Your task to perform on an android device: open app "PlayWell" Image 0: 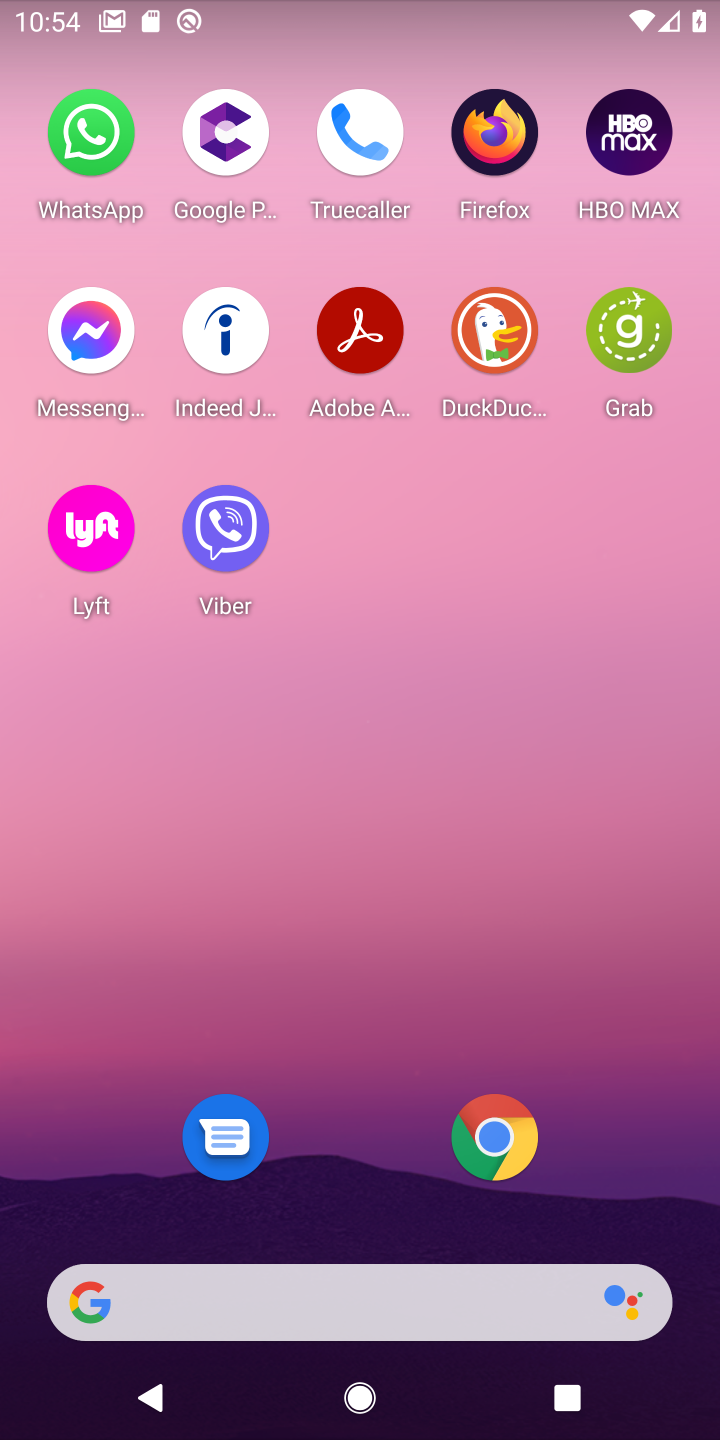
Step 0: press home button
Your task to perform on an android device: open app "PlayWell" Image 1: 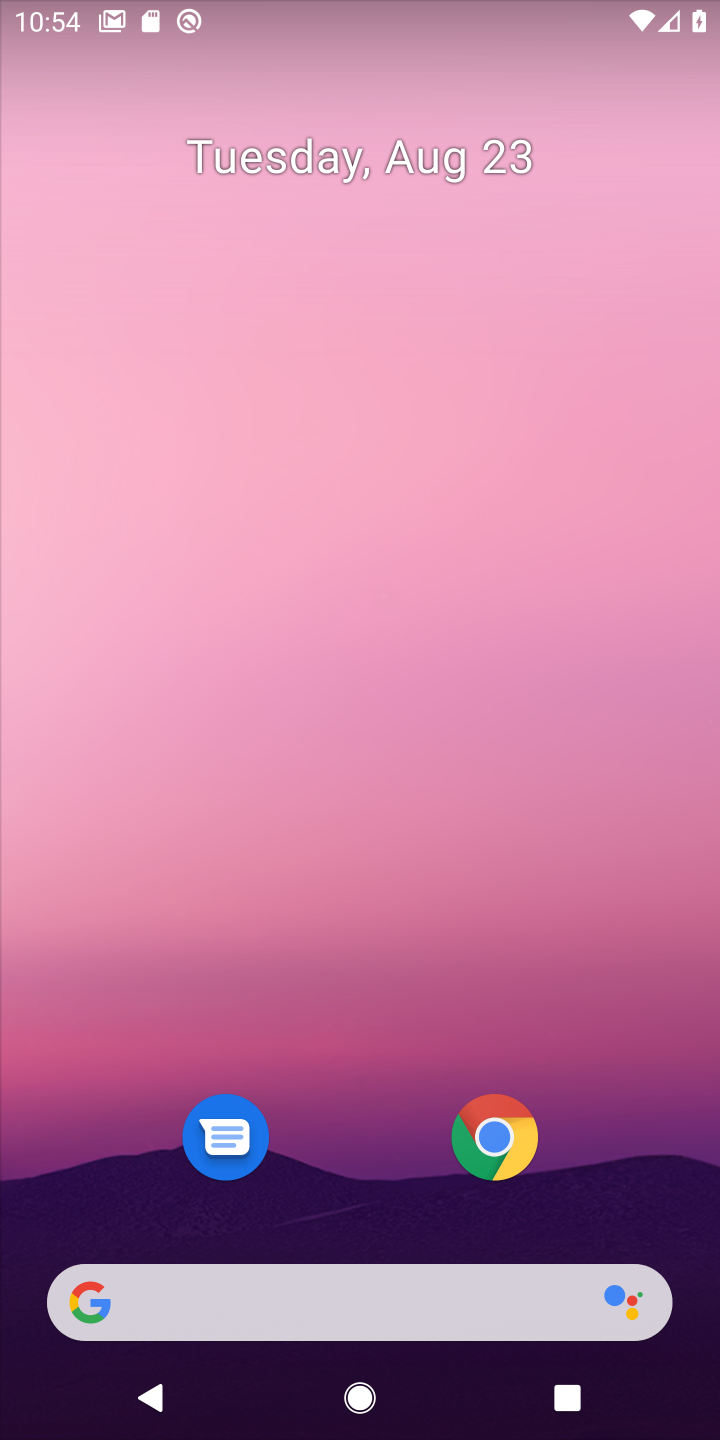
Step 1: drag from (351, 1178) to (338, 31)
Your task to perform on an android device: open app "PlayWell" Image 2: 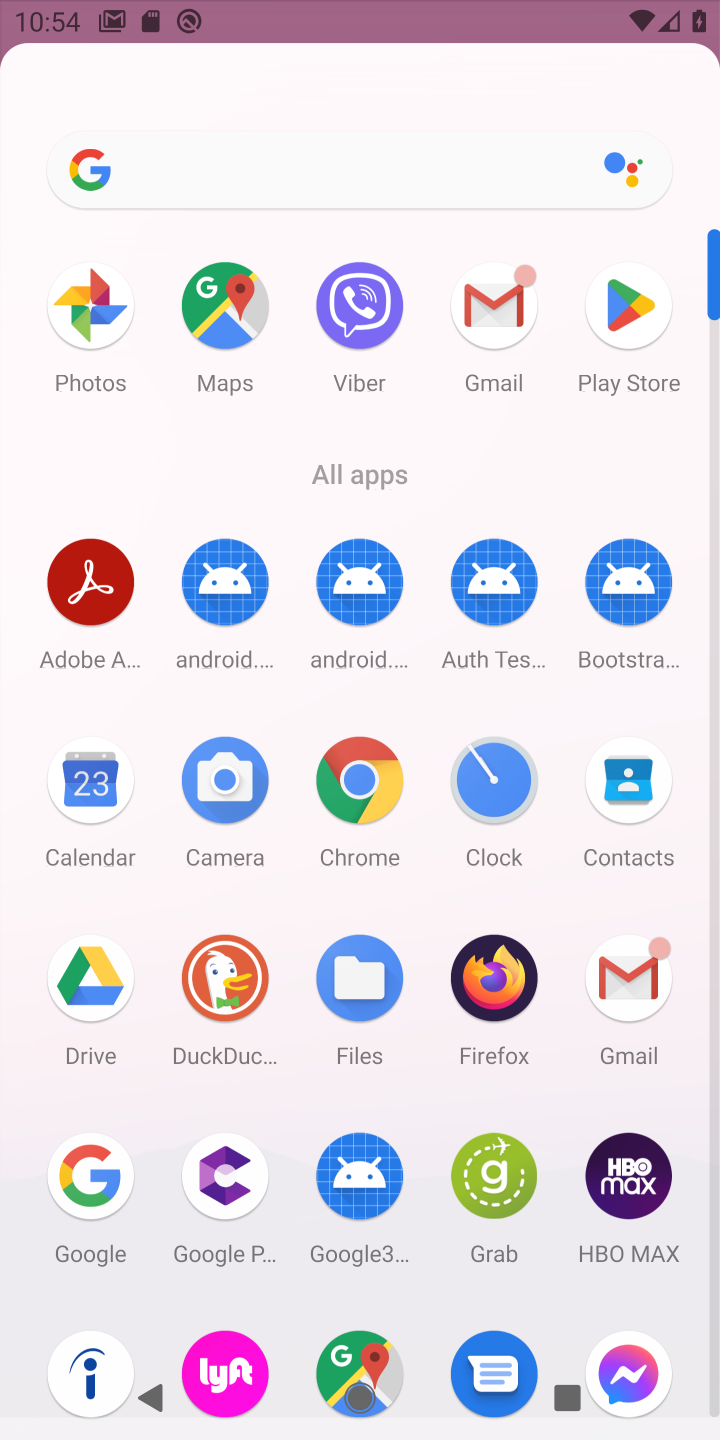
Step 2: click (630, 313)
Your task to perform on an android device: open app "PlayWell" Image 3: 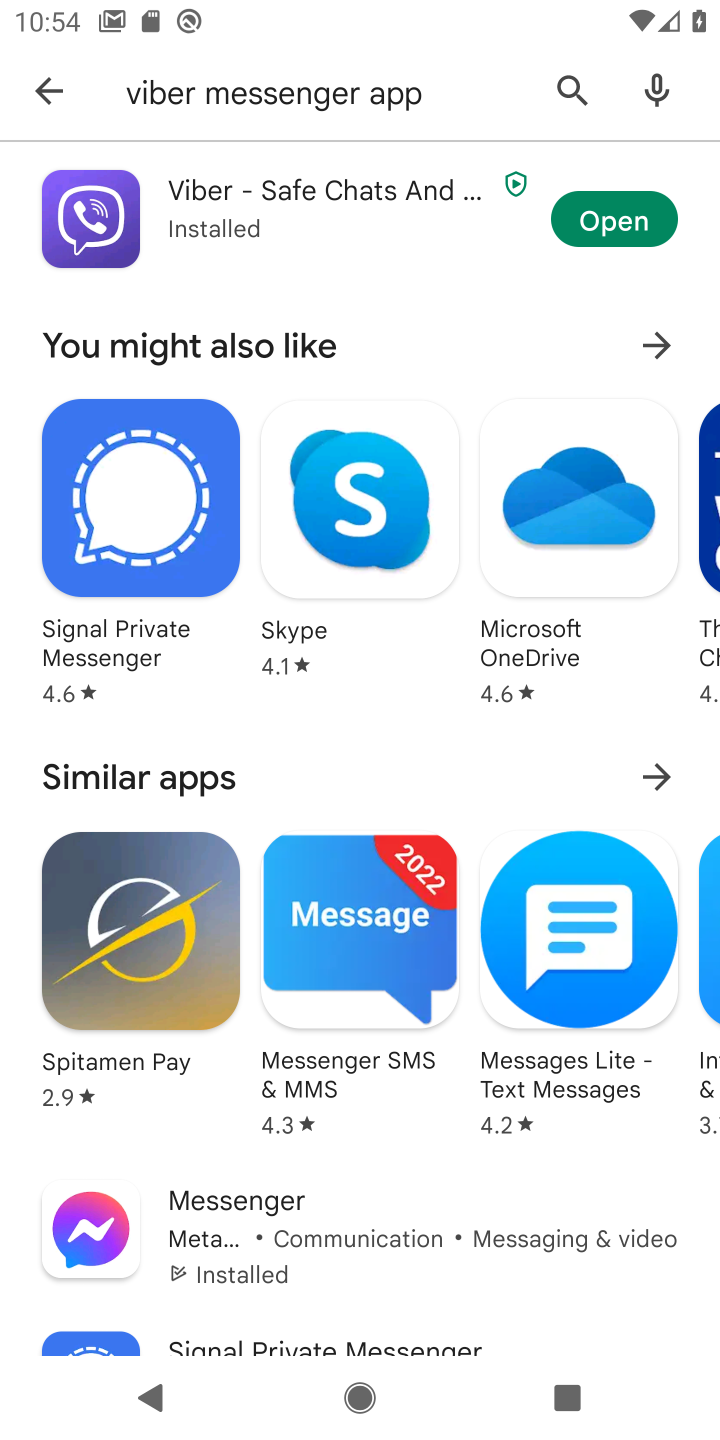
Step 3: click (271, 95)
Your task to perform on an android device: open app "PlayWell" Image 4: 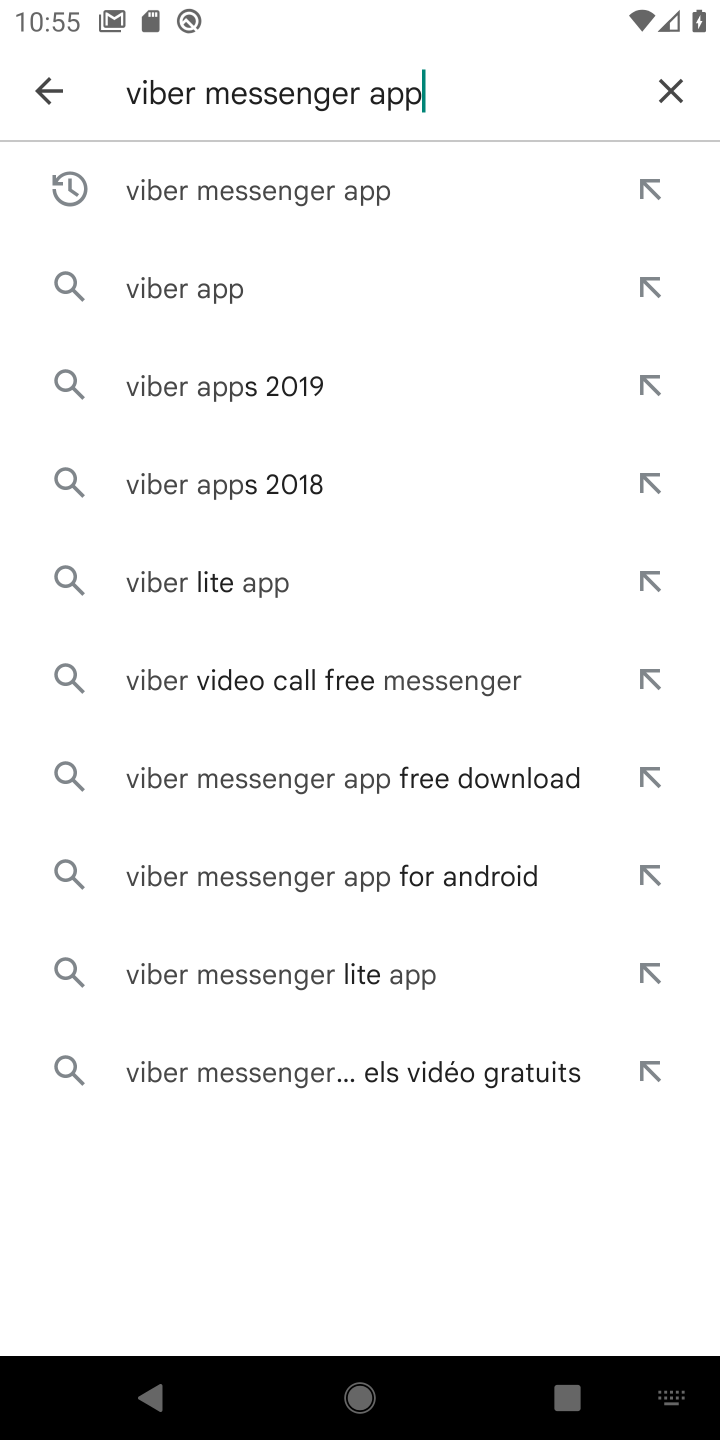
Step 4: click (667, 83)
Your task to perform on an android device: open app "PlayWell" Image 5: 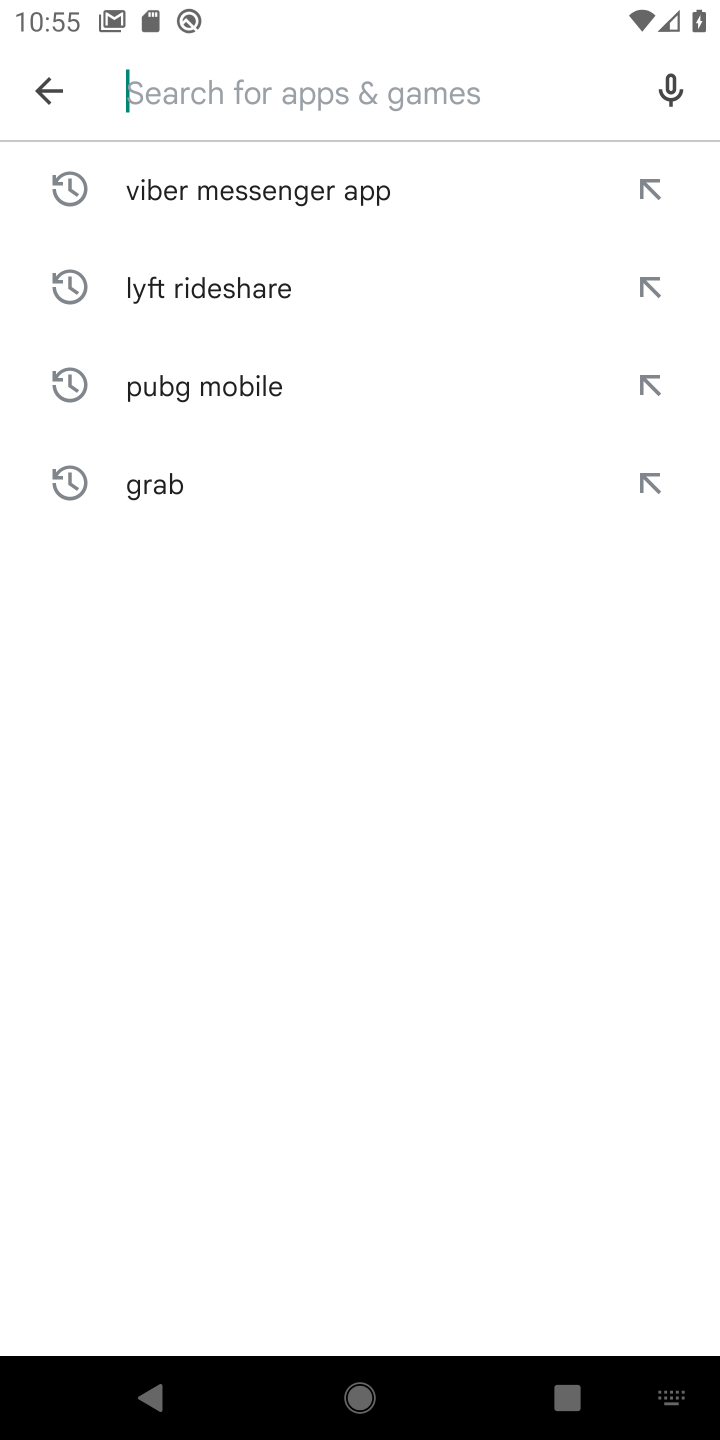
Step 5: type "Playwell"
Your task to perform on an android device: open app "PlayWell" Image 6: 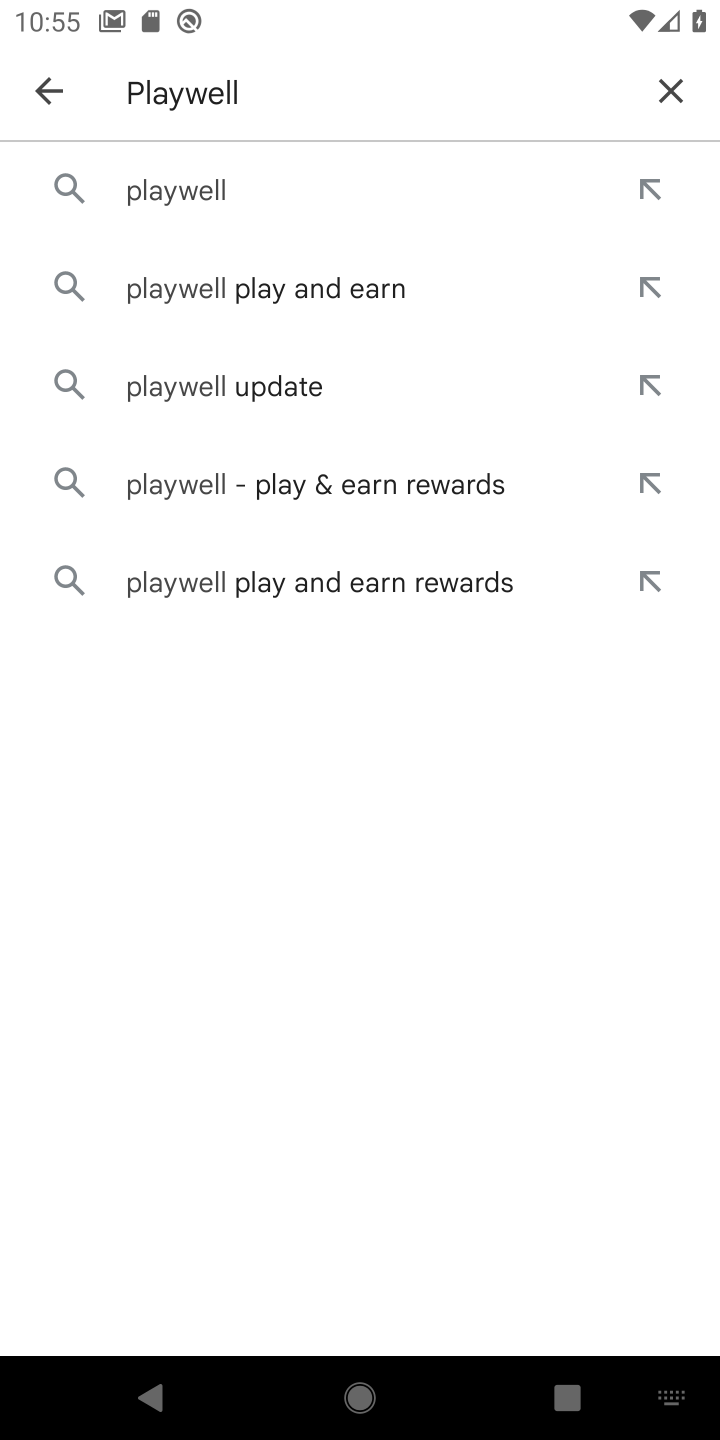
Step 6: click (176, 204)
Your task to perform on an android device: open app "PlayWell" Image 7: 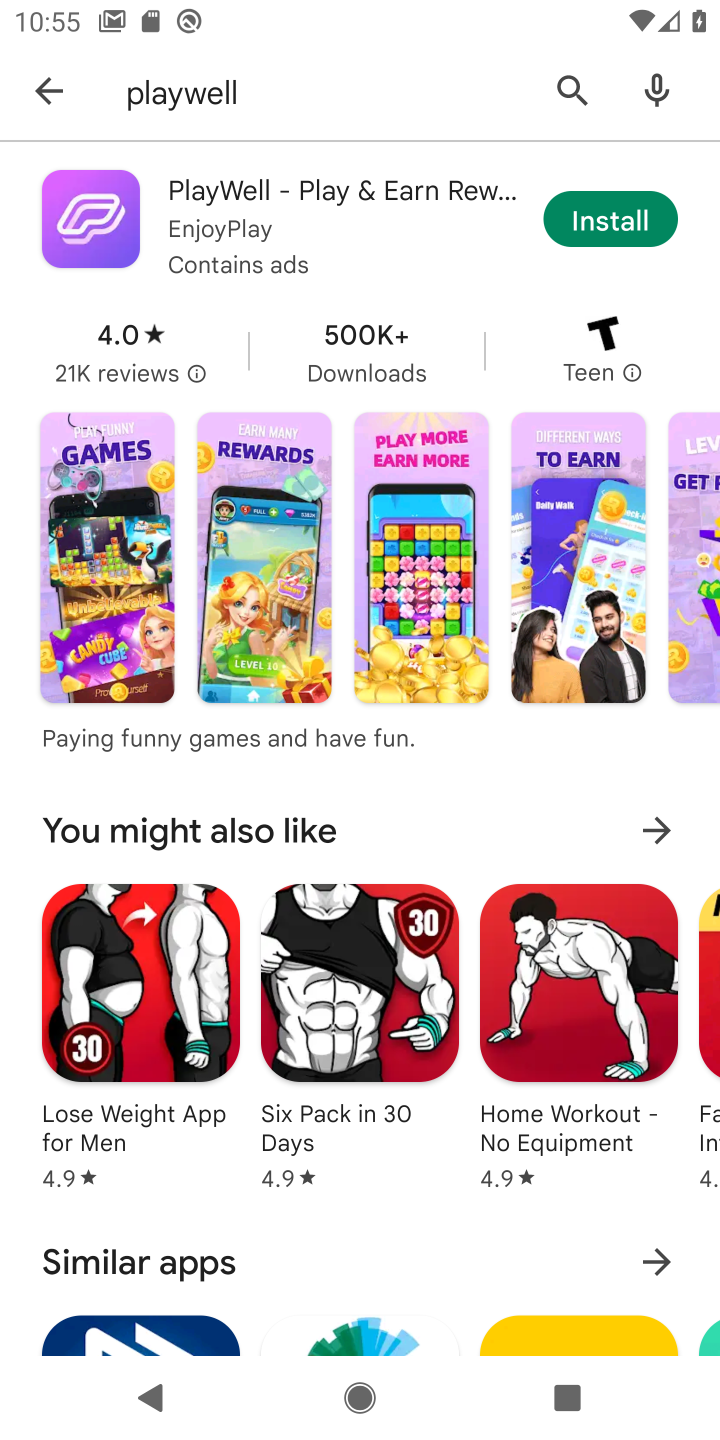
Step 7: task complete